Your task to perform on an android device: Go to accessibility settings Image 0: 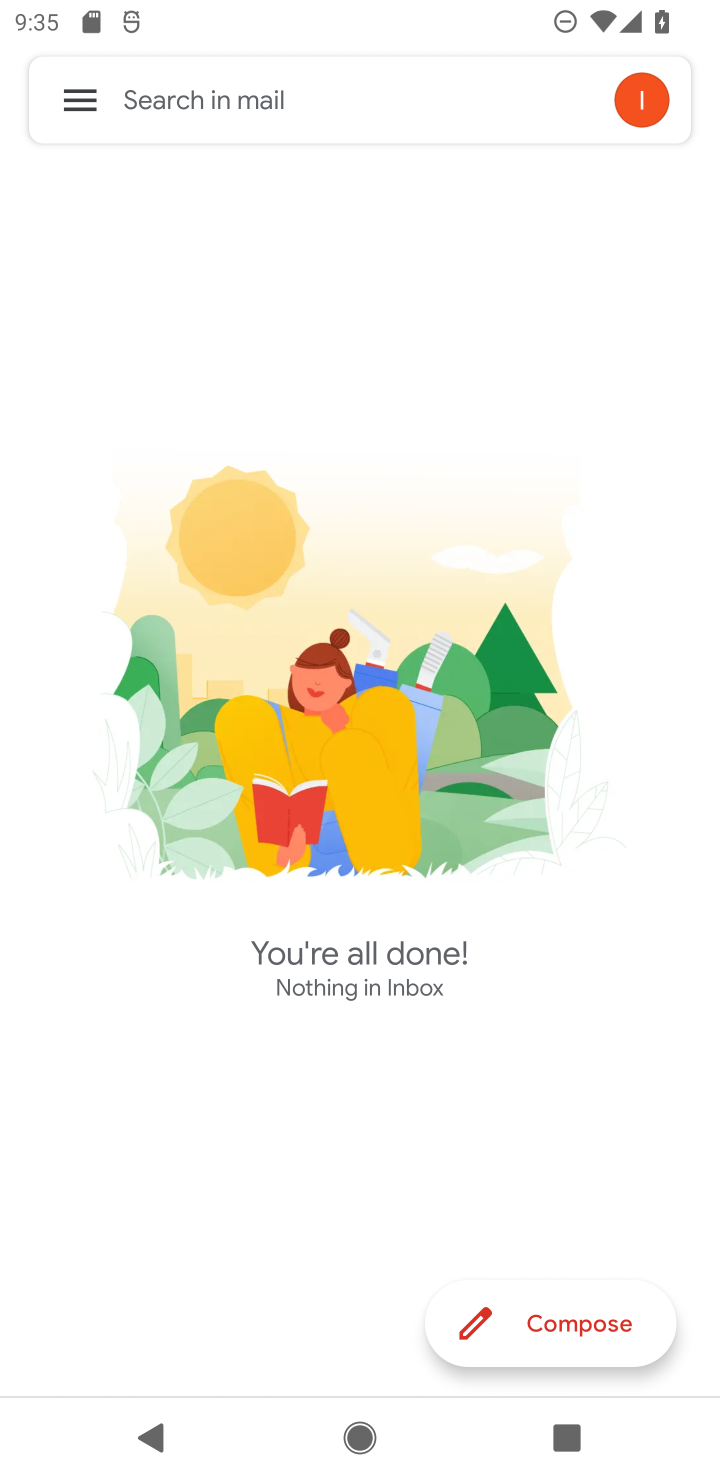
Step 0: press home button
Your task to perform on an android device: Go to accessibility settings Image 1: 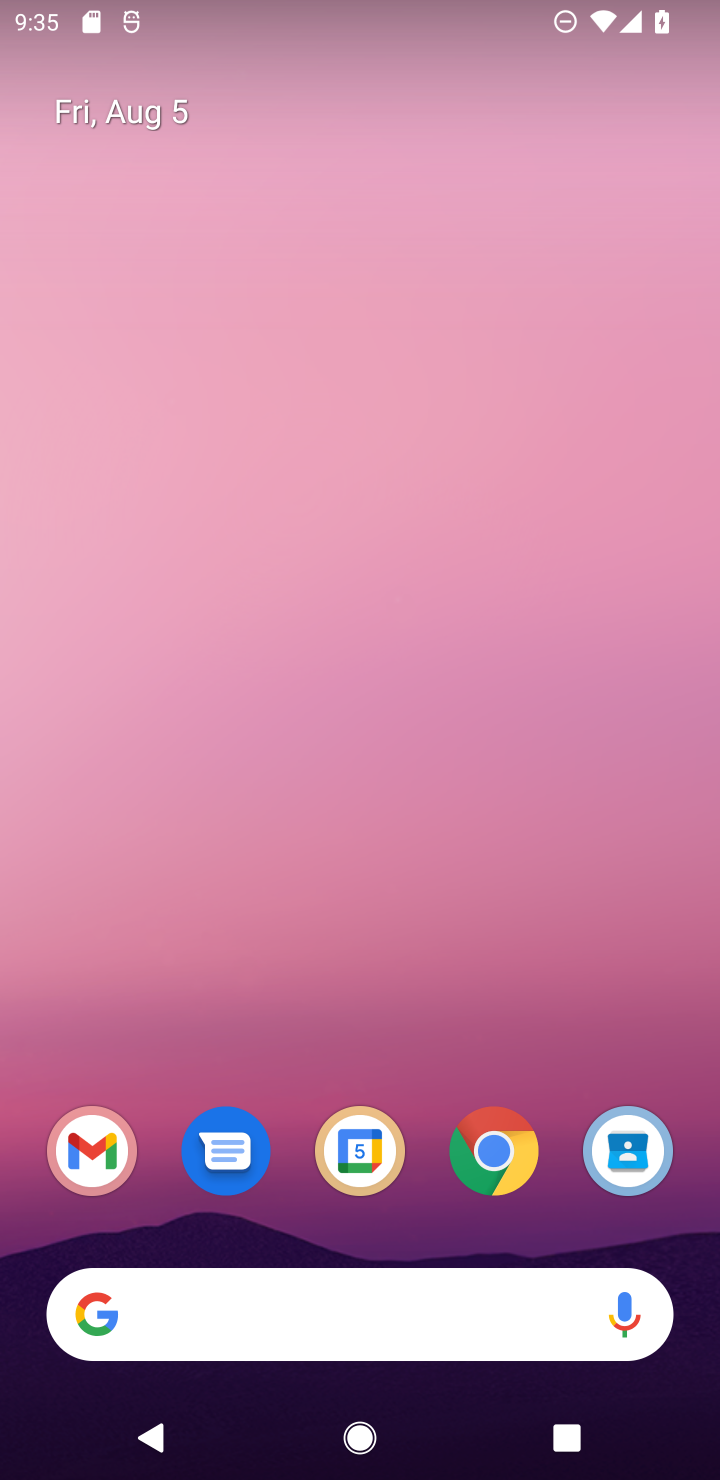
Step 1: drag from (304, 584) to (287, 84)
Your task to perform on an android device: Go to accessibility settings Image 2: 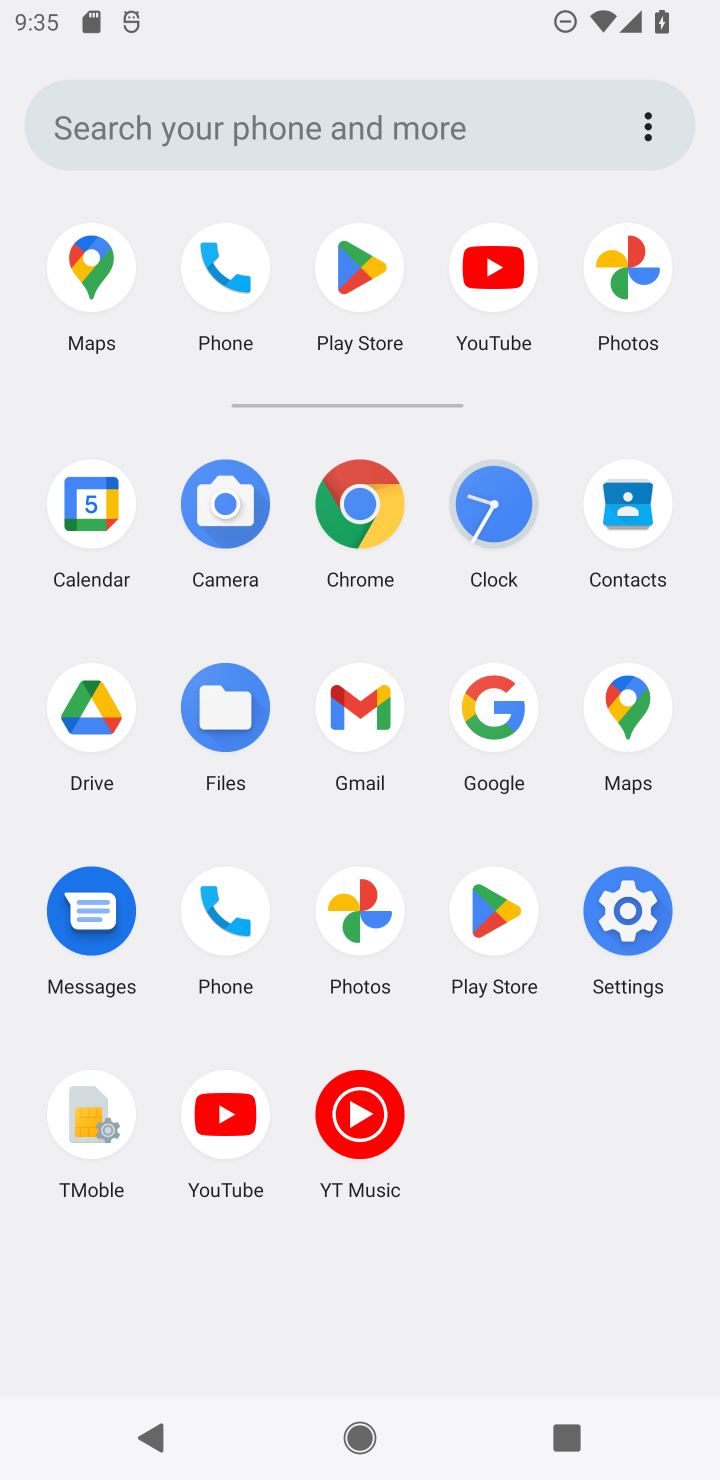
Step 2: click (635, 912)
Your task to perform on an android device: Go to accessibility settings Image 3: 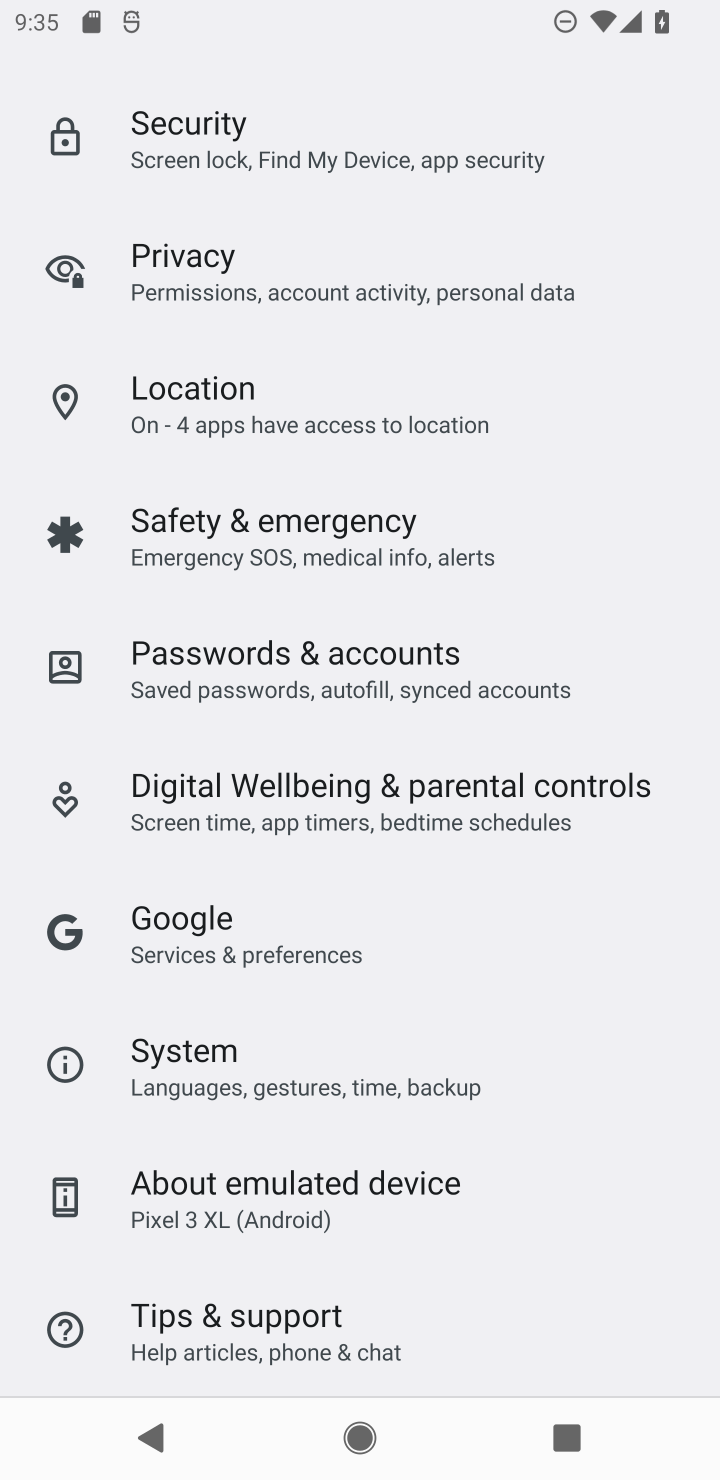
Step 3: drag from (245, 1142) to (258, 1476)
Your task to perform on an android device: Go to accessibility settings Image 4: 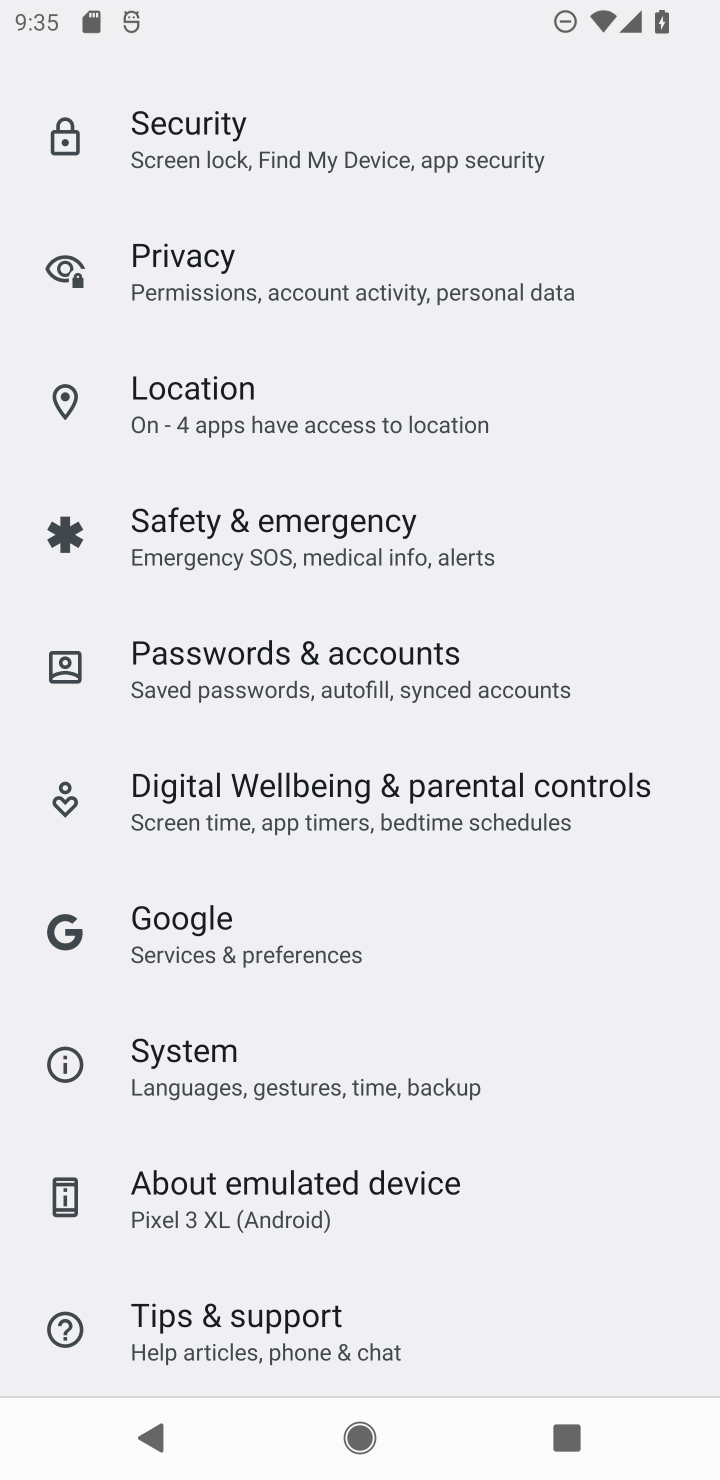
Step 4: drag from (345, 276) to (277, 1477)
Your task to perform on an android device: Go to accessibility settings Image 5: 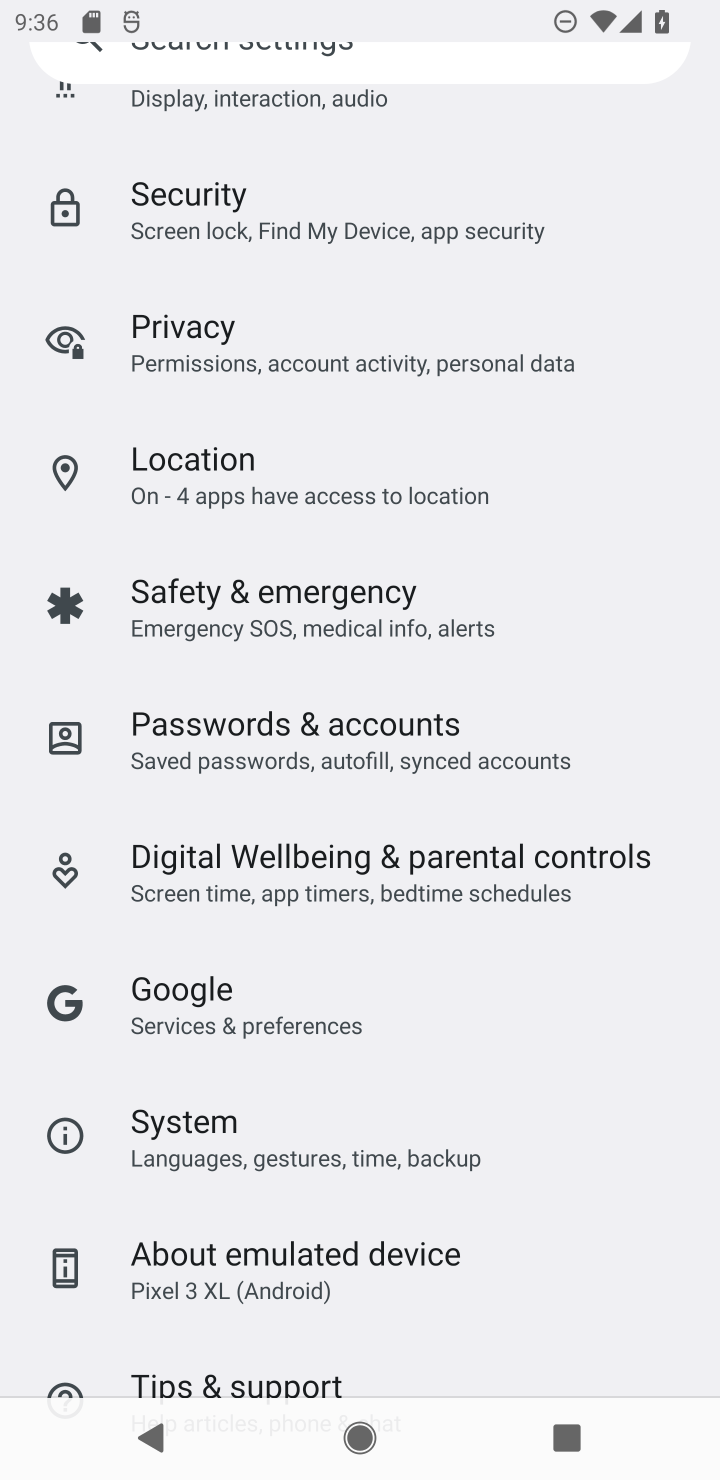
Step 5: drag from (257, 202) to (257, 1365)
Your task to perform on an android device: Go to accessibility settings Image 6: 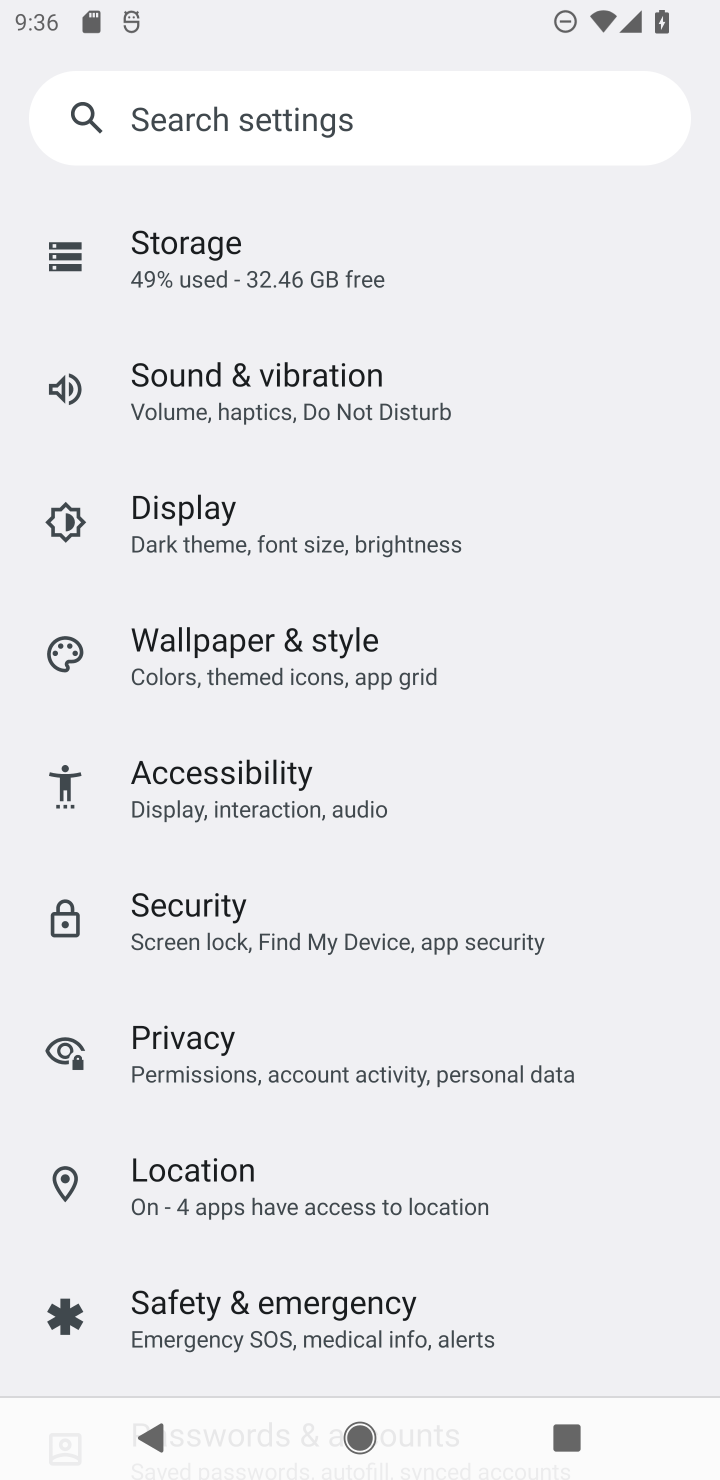
Step 6: click (248, 781)
Your task to perform on an android device: Go to accessibility settings Image 7: 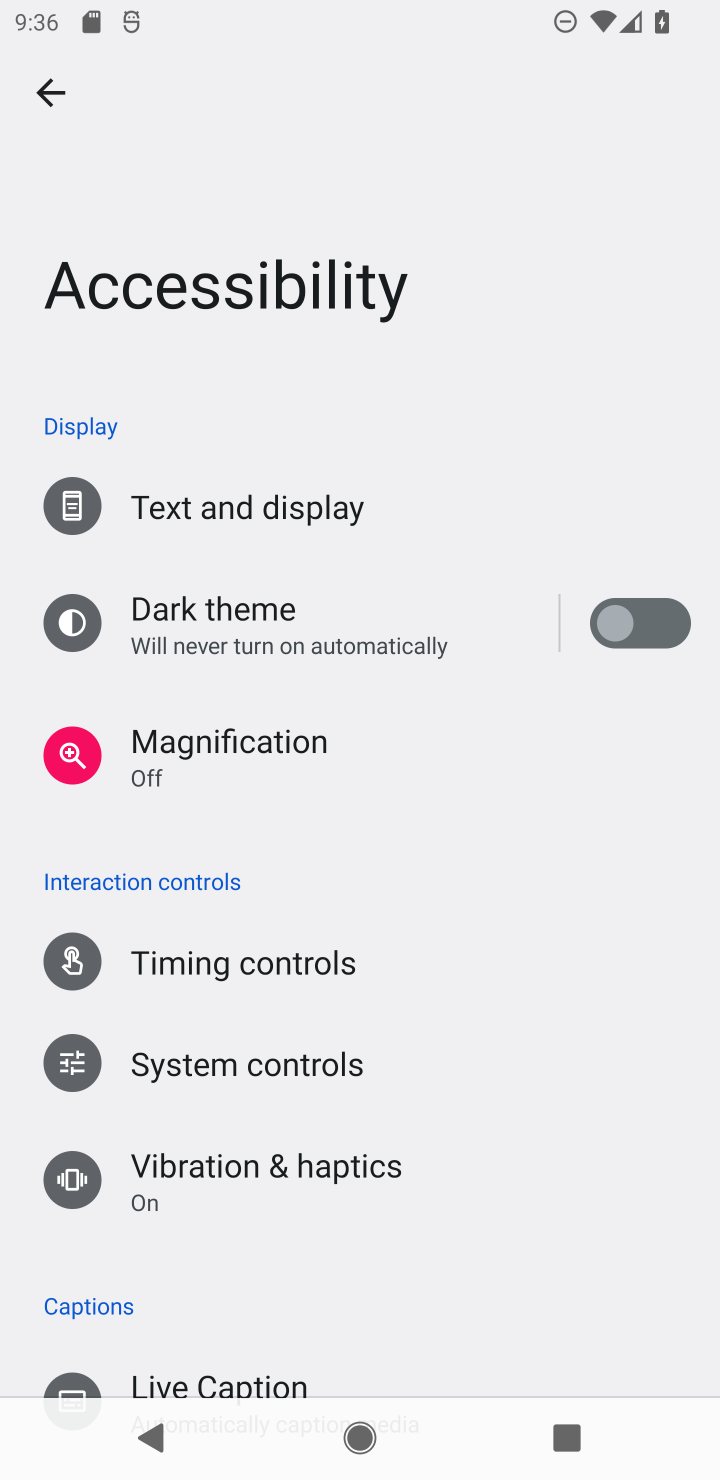
Step 7: task complete